Your task to perform on an android device: Set the phone to "Do not disturb". Image 0: 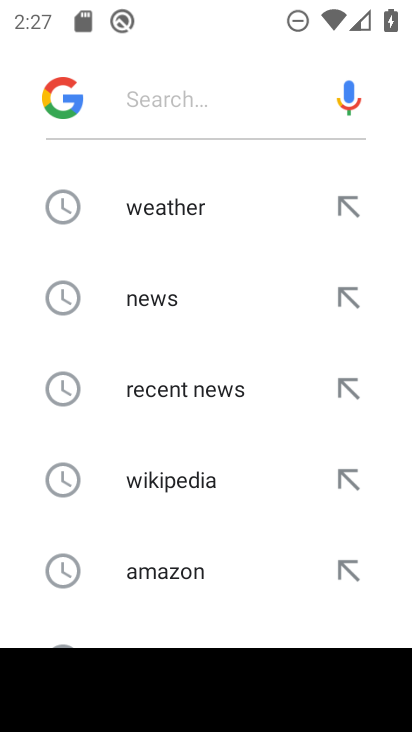
Step 0: press home button
Your task to perform on an android device: Set the phone to "Do not disturb". Image 1: 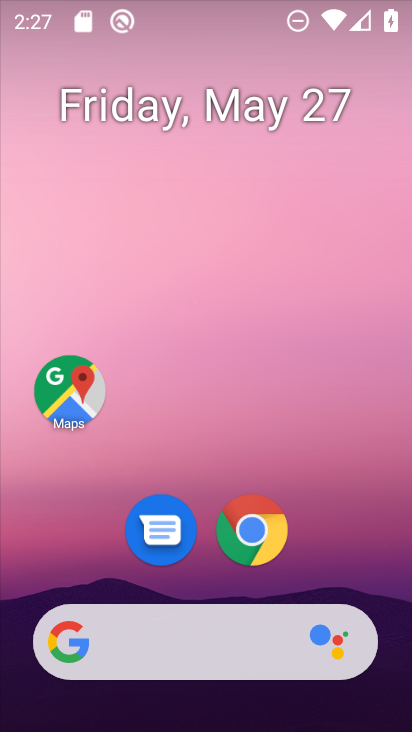
Step 1: task complete